Your task to perform on an android device: Open Youtube and go to "Your channel" Image 0: 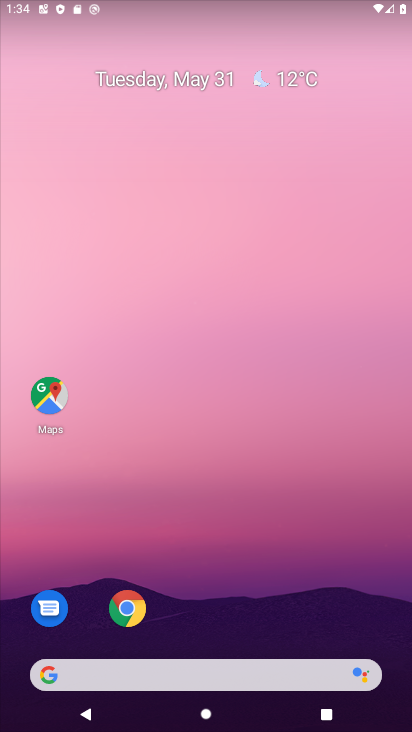
Step 0: drag from (311, 597) to (315, 133)
Your task to perform on an android device: Open Youtube and go to "Your channel" Image 1: 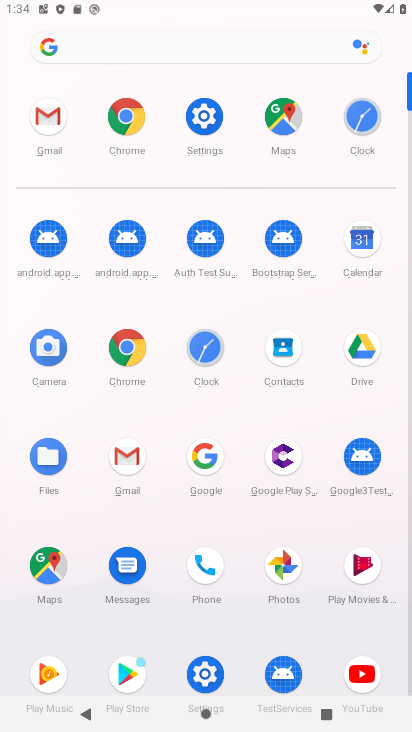
Step 1: click (358, 680)
Your task to perform on an android device: Open Youtube and go to "Your channel" Image 2: 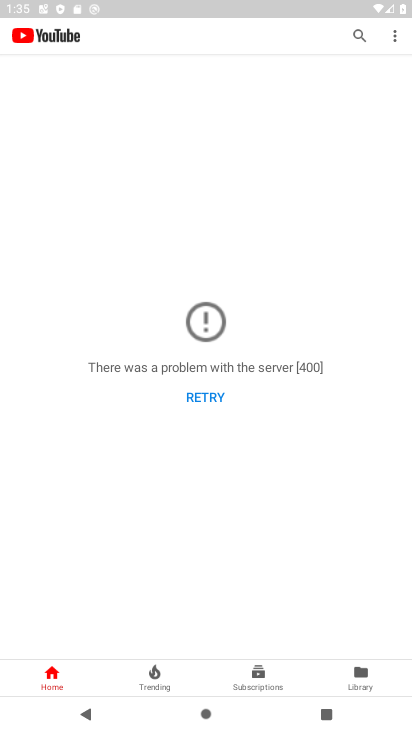
Step 2: click (373, 681)
Your task to perform on an android device: Open Youtube and go to "Your channel" Image 3: 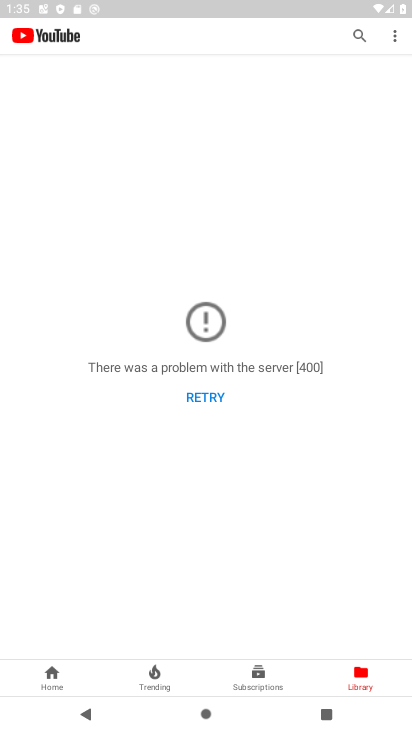
Step 3: task complete